Your task to perform on an android device: What is the recent news? Image 0: 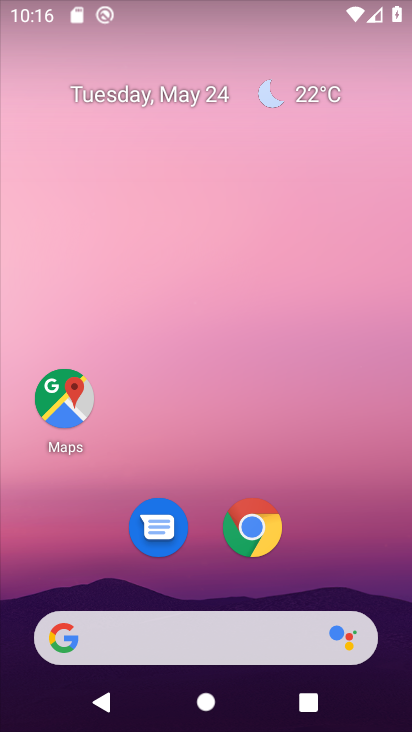
Step 0: click (67, 640)
Your task to perform on an android device: What is the recent news? Image 1: 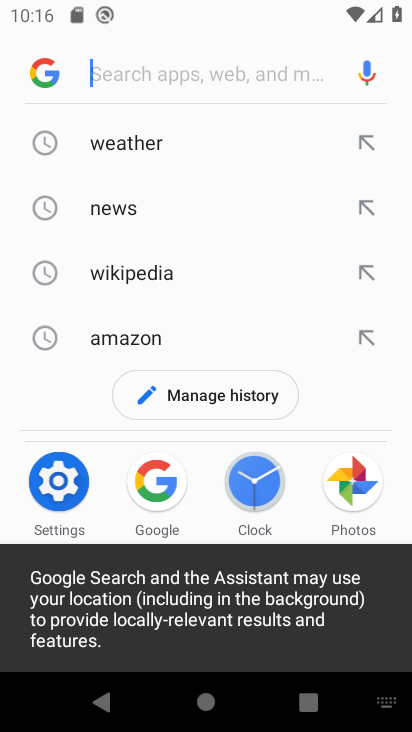
Step 1: click (138, 208)
Your task to perform on an android device: What is the recent news? Image 2: 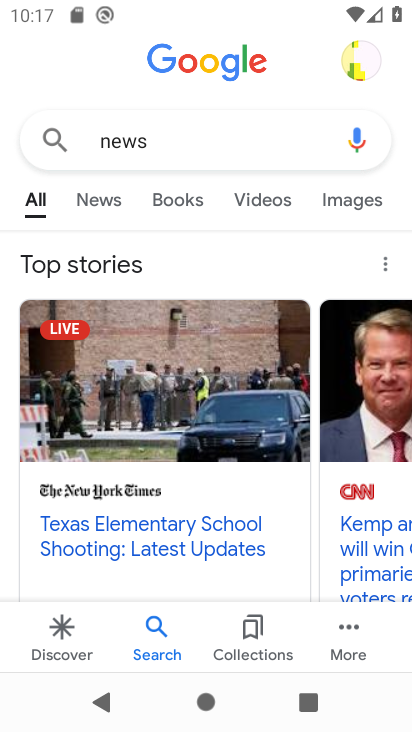
Step 2: click (95, 210)
Your task to perform on an android device: What is the recent news? Image 3: 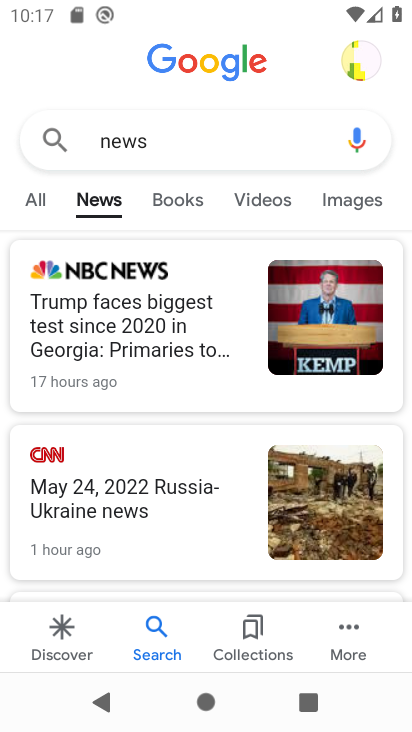
Step 3: task complete